Your task to perform on an android device: toggle location history Image 0: 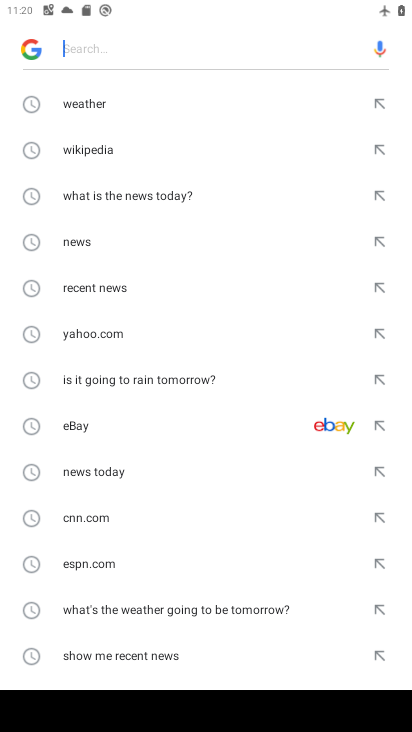
Step 0: press home button
Your task to perform on an android device: toggle location history Image 1: 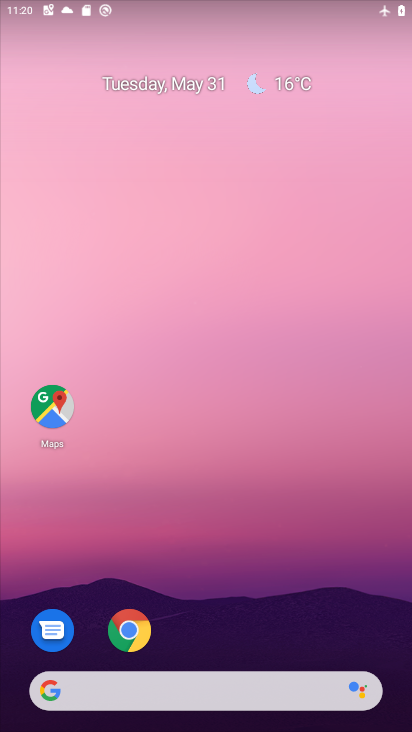
Step 1: drag from (378, 571) to (226, 68)
Your task to perform on an android device: toggle location history Image 2: 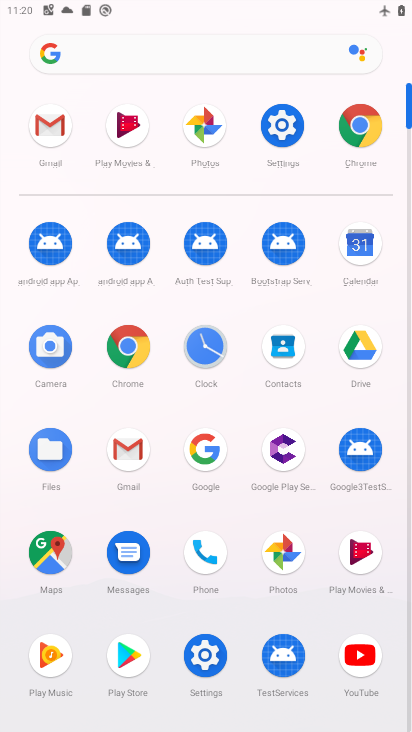
Step 2: click (288, 132)
Your task to perform on an android device: toggle location history Image 3: 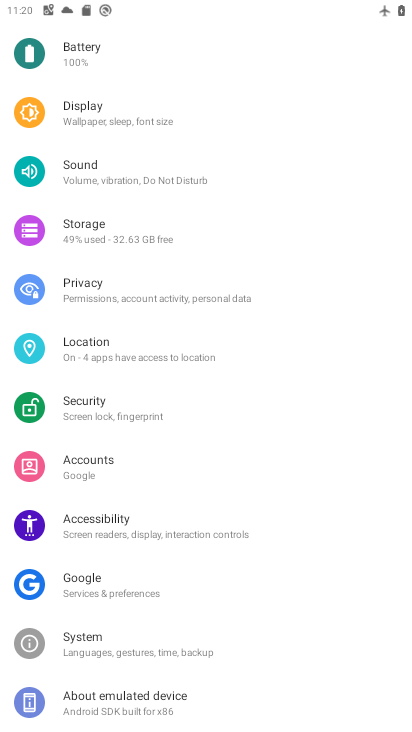
Step 3: drag from (163, 538) to (178, 136)
Your task to perform on an android device: toggle location history Image 4: 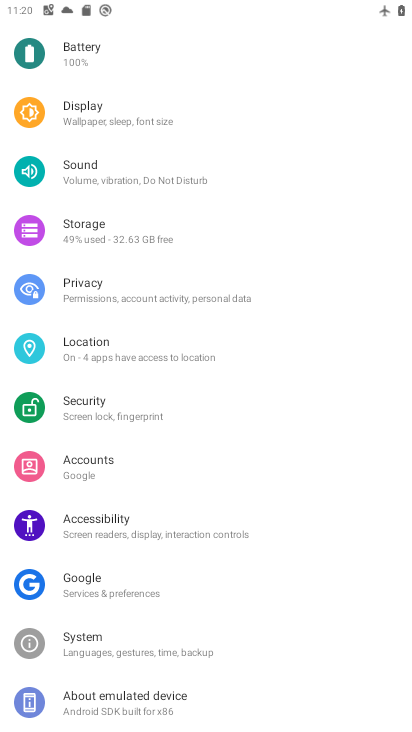
Step 4: drag from (135, 193) to (123, 384)
Your task to perform on an android device: toggle location history Image 5: 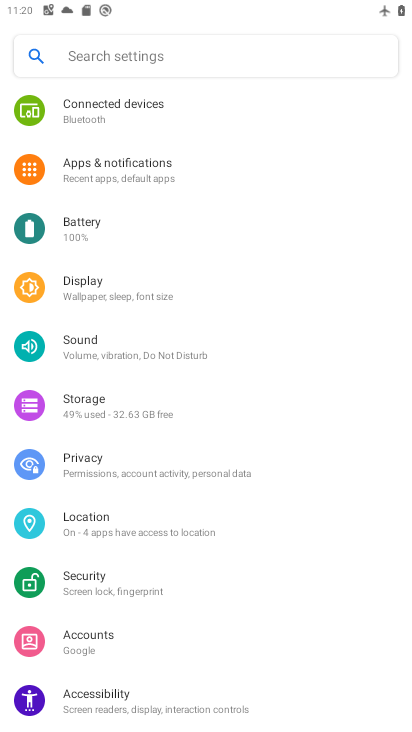
Step 5: click (107, 519)
Your task to perform on an android device: toggle location history Image 6: 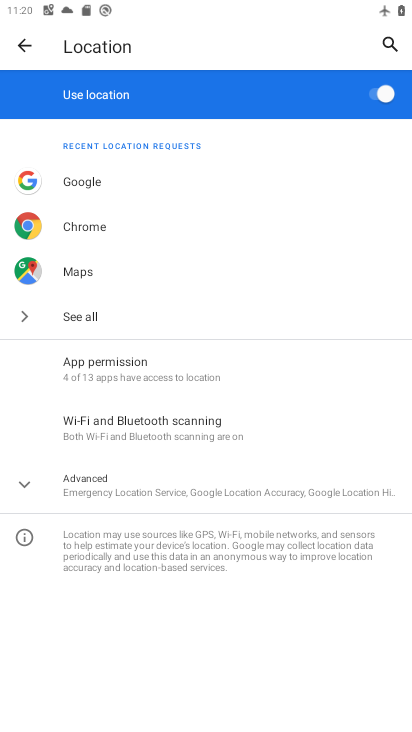
Step 6: click (122, 485)
Your task to perform on an android device: toggle location history Image 7: 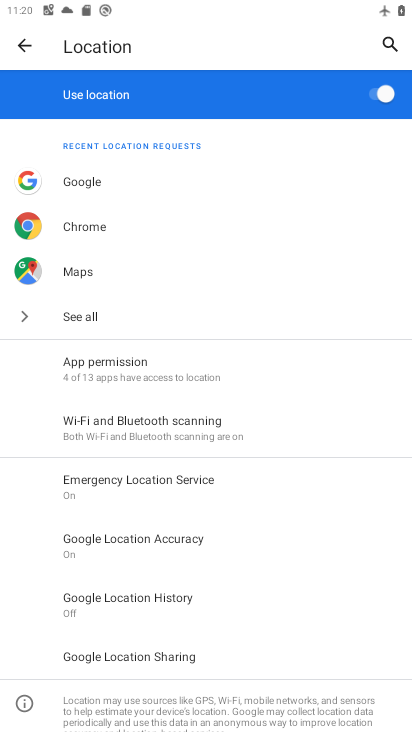
Step 7: click (183, 596)
Your task to perform on an android device: toggle location history Image 8: 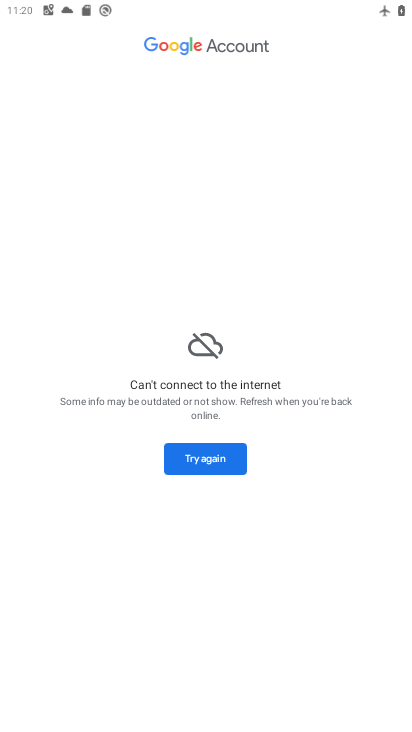
Step 8: task complete